Your task to perform on an android device: toggle data saver in the chrome app Image 0: 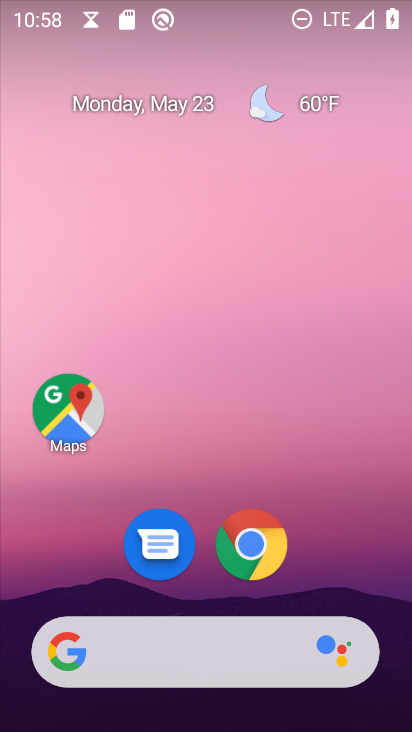
Step 0: drag from (278, 544) to (282, 403)
Your task to perform on an android device: toggle data saver in the chrome app Image 1: 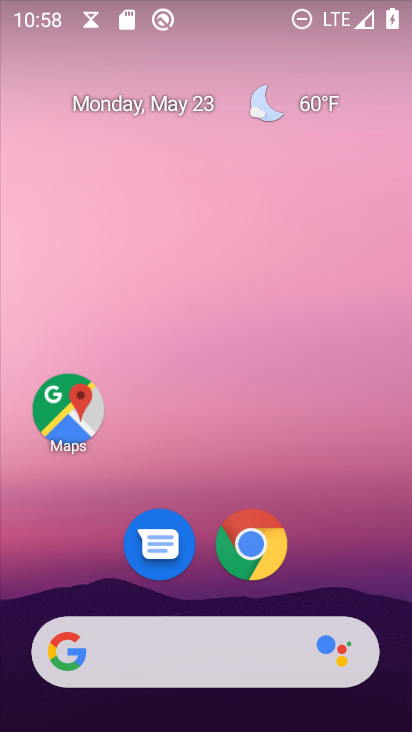
Step 1: click (247, 556)
Your task to perform on an android device: toggle data saver in the chrome app Image 2: 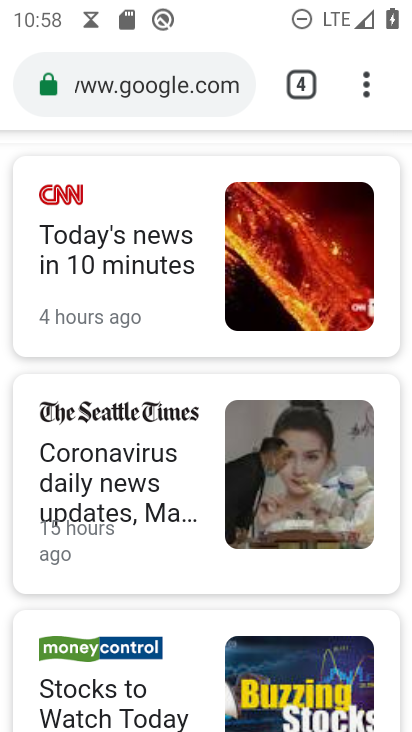
Step 2: click (355, 94)
Your task to perform on an android device: toggle data saver in the chrome app Image 3: 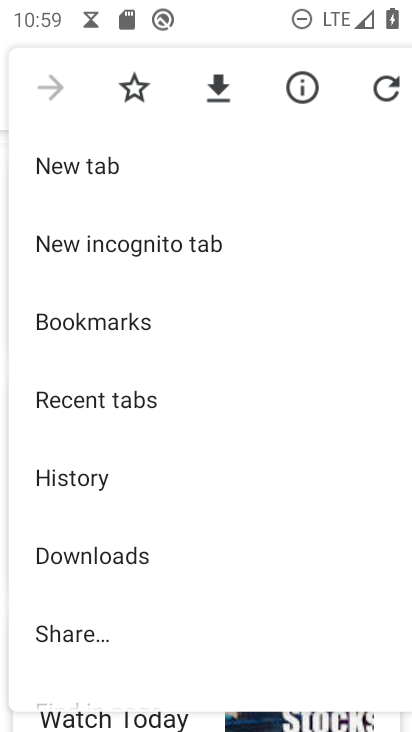
Step 3: drag from (145, 587) to (143, 224)
Your task to perform on an android device: toggle data saver in the chrome app Image 4: 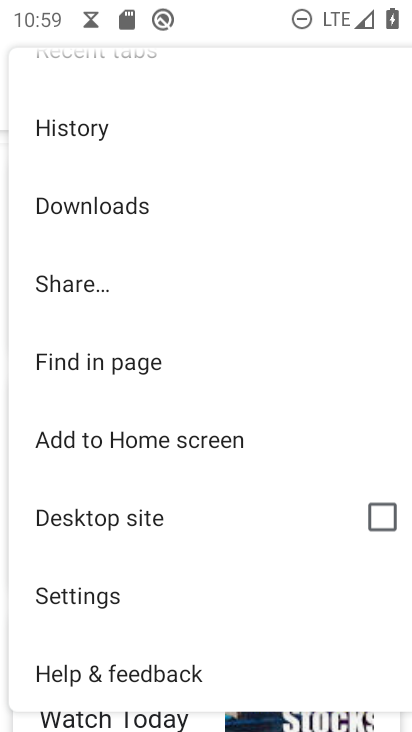
Step 4: click (97, 596)
Your task to perform on an android device: toggle data saver in the chrome app Image 5: 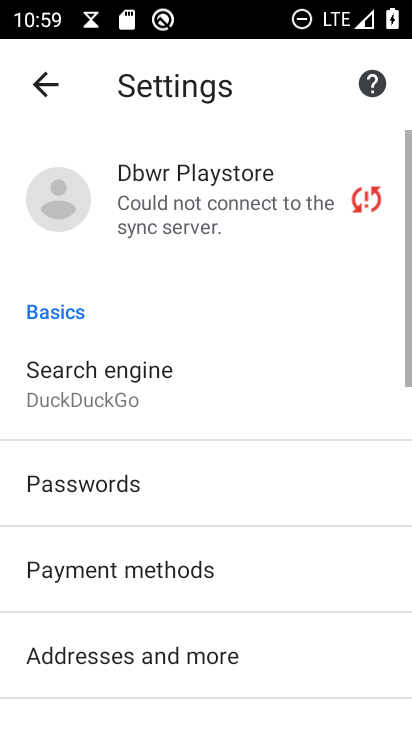
Step 5: drag from (122, 618) to (65, 124)
Your task to perform on an android device: toggle data saver in the chrome app Image 6: 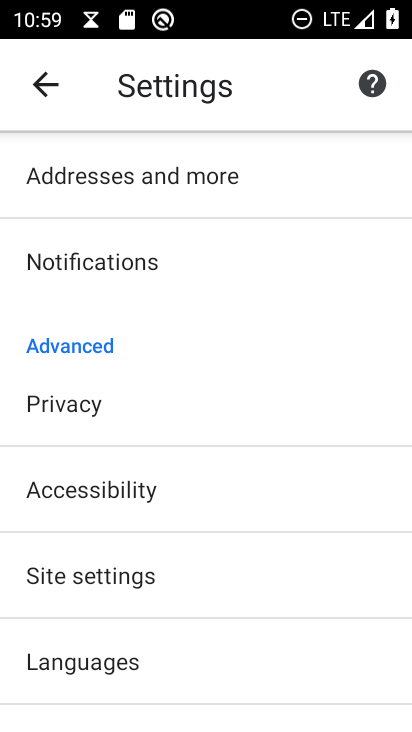
Step 6: drag from (132, 632) to (95, 311)
Your task to perform on an android device: toggle data saver in the chrome app Image 7: 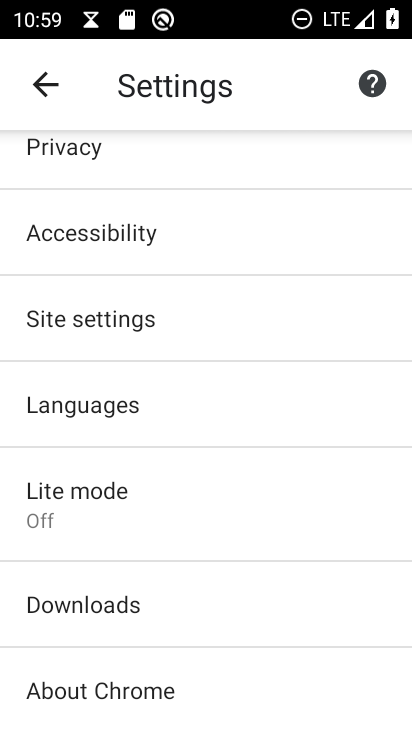
Step 7: click (53, 507)
Your task to perform on an android device: toggle data saver in the chrome app Image 8: 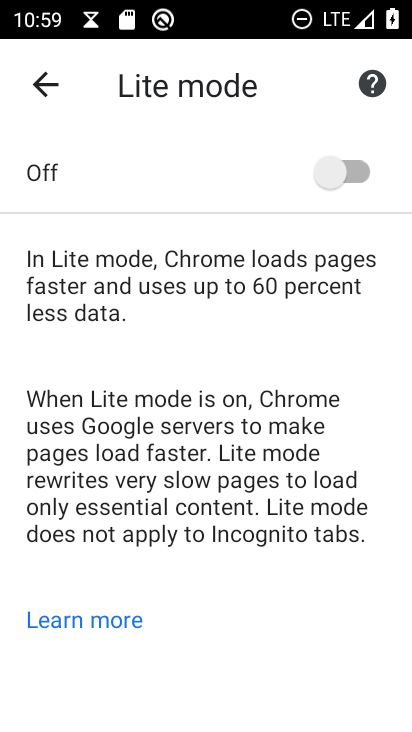
Step 8: click (344, 186)
Your task to perform on an android device: toggle data saver in the chrome app Image 9: 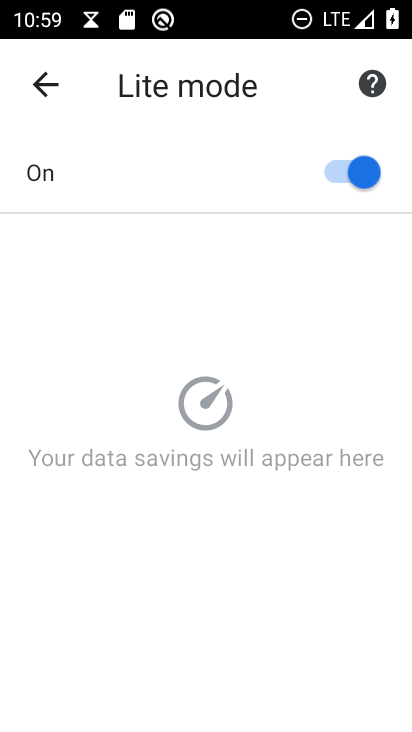
Step 9: task complete